Your task to perform on an android device: Empty the shopping cart on ebay.com. Add usb-c to usb-a to the cart on ebay.com Image 0: 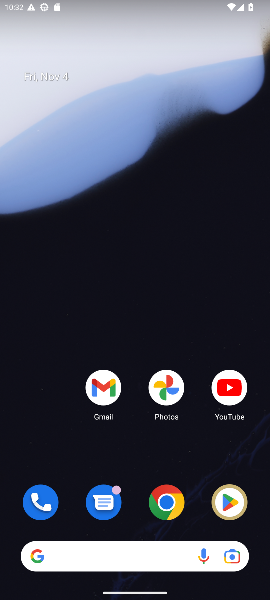
Step 0: drag from (129, 463) to (124, 72)
Your task to perform on an android device: Empty the shopping cart on ebay.com. Add usb-c to usb-a to the cart on ebay.com Image 1: 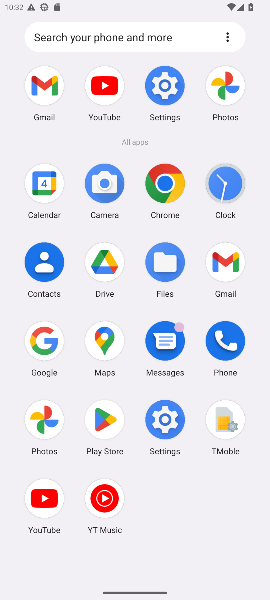
Step 1: click (165, 189)
Your task to perform on an android device: Empty the shopping cart on ebay.com. Add usb-c to usb-a to the cart on ebay.com Image 2: 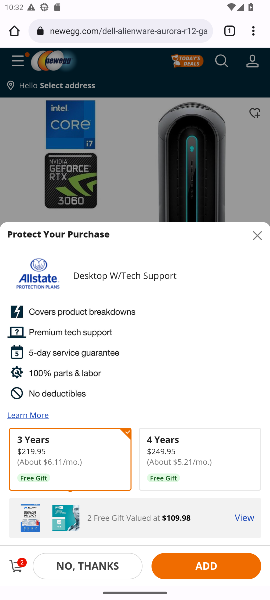
Step 2: click (122, 27)
Your task to perform on an android device: Empty the shopping cart on ebay.com. Add usb-c to usb-a to the cart on ebay.com Image 3: 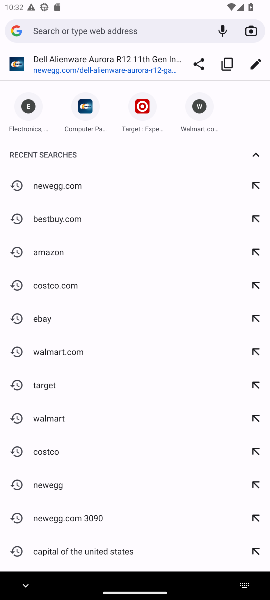
Step 3: type "ebay.com"
Your task to perform on an android device: Empty the shopping cart on ebay.com. Add usb-c to usb-a to the cart on ebay.com Image 4: 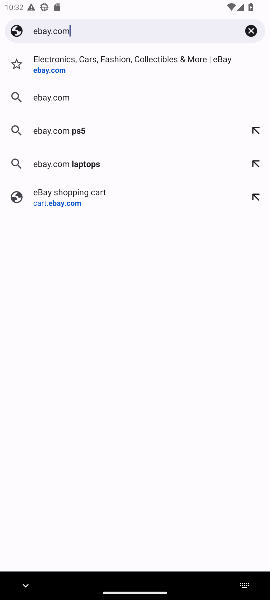
Step 4: press enter
Your task to perform on an android device: Empty the shopping cart on ebay.com. Add usb-c to usb-a to the cart on ebay.com Image 5: 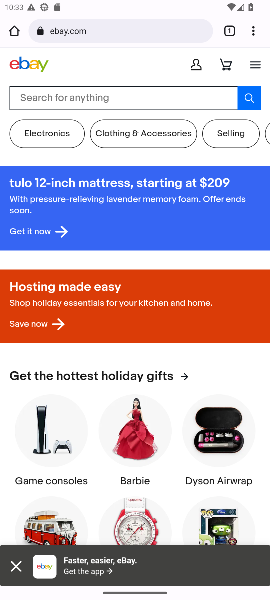
Step 5: click (226, 68)
Your task to perform on an android device: Empty the shopping cart on ebay.com. Add usb-c to usb-a to the cart on ebay.com Image 6: 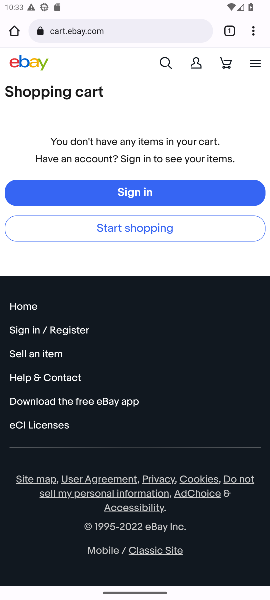
Step 6: click (123, 229)
Your task to perform on an android device: Empty the shopping cart on ebay.com. Add usb-c to usb-a to the cart on ebay.com Image 7: 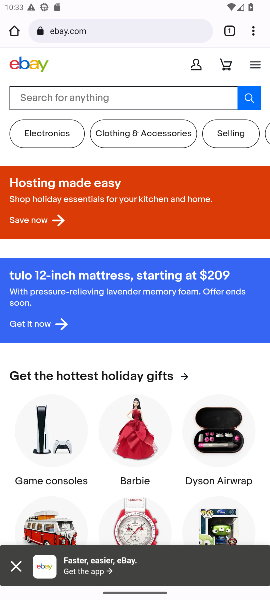
Step 7: click (156, 92)
Your task to perform on an android device: Empty the shopping cart on ebay.com. Add usb-c to usb-a to the cart on ebay.com Image 8: 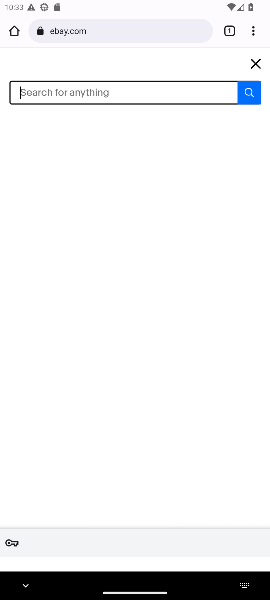
Step 8: type "usb-c to usb-a"
Your task to perform on an android device: Empty the shopping cart on ebay.com. Add usb-c to usb-a to the cart on ebay.com Image 9: 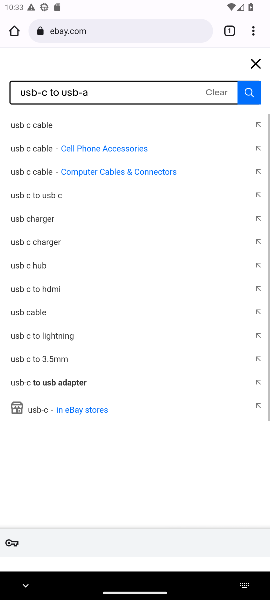
Step 9: press enter
Your task to perform on an android device: Empty the shopping cart on ebay.com. Add usb-c to usb-a to the cart on ebay.com Image 10: 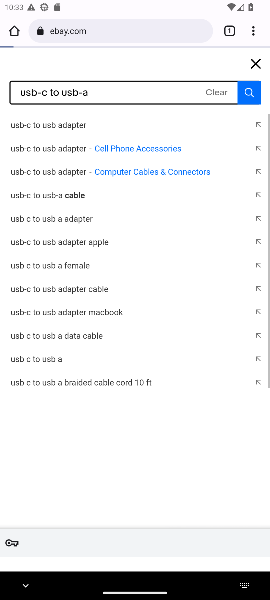
Step 10: press enter
Your task to perform on an android device: Empty the shopping cart on ebay.com. Add usb-c to usb-a to the cart on ebay.com Image 11: 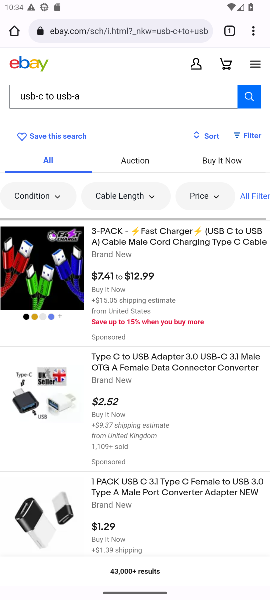
Step 11: drag from (160, 443) to (159, 360)
Your task to perform on an android device: Empty the shopping cart on ebay.com. Add usb-c to usb-a to the cart on ebay.com Image 12: 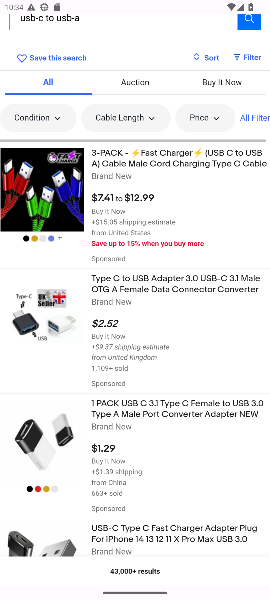
Step 12: click (57, 183)
Your task to perform on an android device: Empty the shopping cart on ebay.com. Add usb-c to usb-a to the cart on ebay.com Image 13: 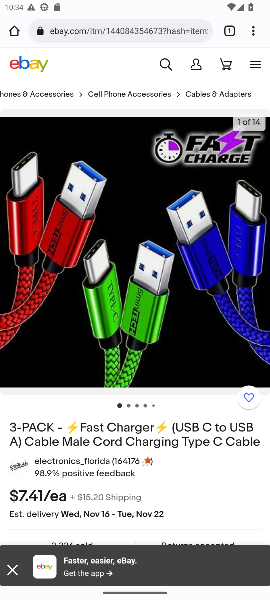
Step 13: drag from (179, 473) to (192, 90)
Your task to perform on an android device: Empty the shopping cart on ebay.com. Add usb-c to usb-a to the cart on ebay.com Image 14: 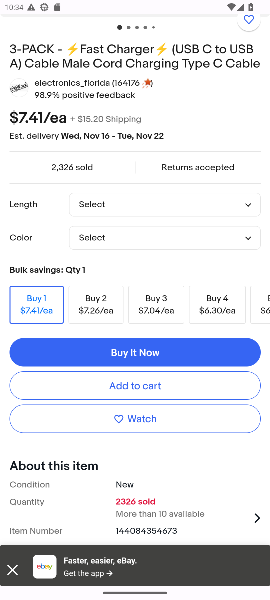
Step 14: drag from (170, 425) to (200, 77)
Your task to perform on an android device: Empty the shopping cart on ebay.com. Add usb-c to usb-a to the cart on ebay.com Image 15: 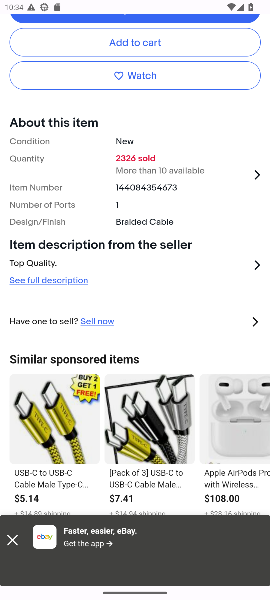
Step 15: click (173, 41)
Your task to perform on an android device: Empty the shopping cart on ebay.com. Add usb-c to usb-a to the cart on ebay.com Image 16: 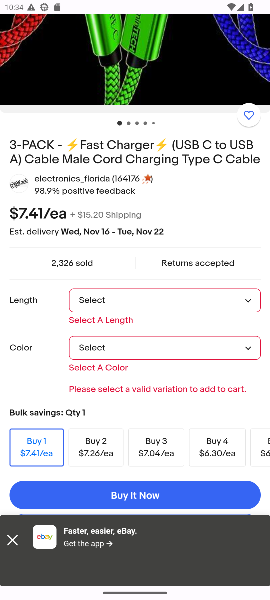
Step 16: click (163, 300)
Your task to perform on an android device: Empty the shopping cart on ebay.com. Add usb-c to usb-a to the cart on ebay.com Image 17: 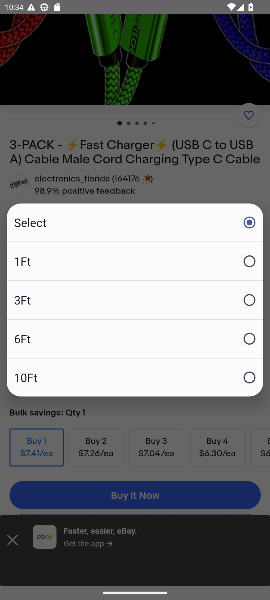
Step 17: click (42, 258)
Your task to perform on an android device: Empty the shopping cart on ebay.com. Add usb-c to usb-a to the cart on ebay.com Image 18: 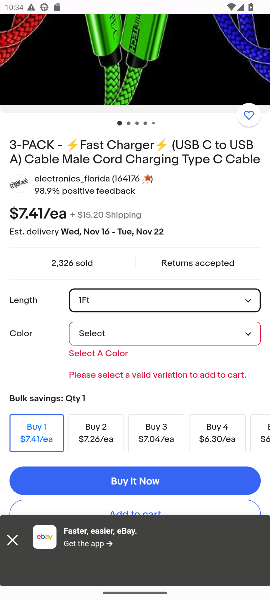
Step 18: click (123, 334)
Your task to perform on an android device: Empty the shopping cart on ebay.com. Add usb-c to usb-a to the cart on ebay.com Image 19: 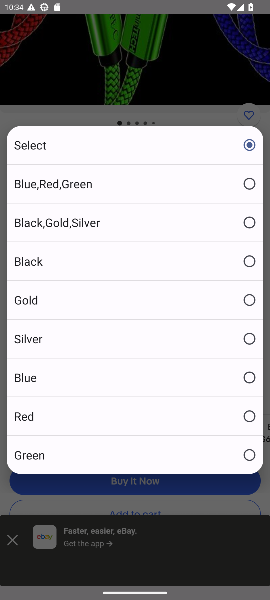
Step 19: click (92, 185)
Your task to perform on an android device: Empty the shopping cart on ebay.com. Add usb-c to usb-a to the cart on ebay.com Image 20: 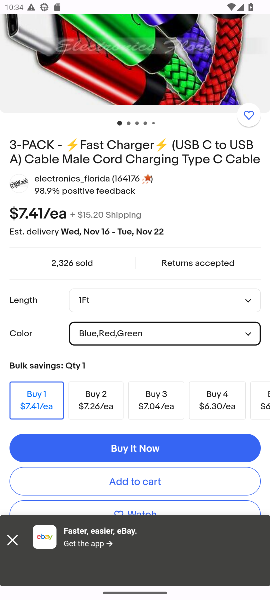
Step 20: click (131, 482)
Your task to perform on an android device: Empty the shopping cart on ebay.com. Add usb-c to usb-a to the cart on ebay.com Image 21: 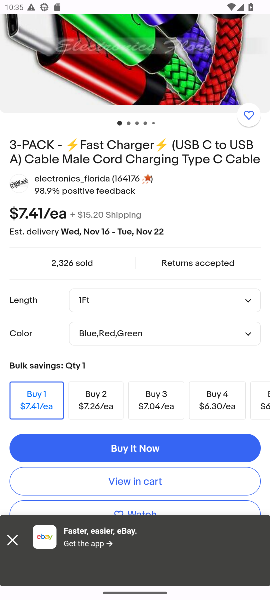
Step 21: task complete